Your task to perform on an android device: Open Yahoo.com Image 0: 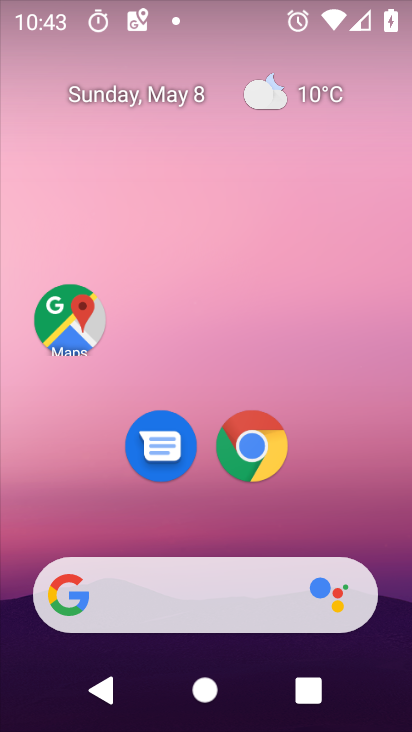
Step 0: click (254, 460)
Your task to perform on an android device: Open Yahoo.com Image 1: 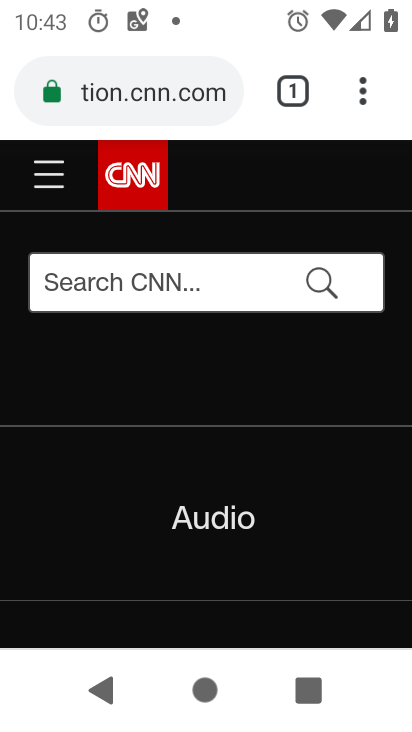
Step 1: click (116, 101)
Your task to perform on an android device: Open Yahoo.com Image 2: 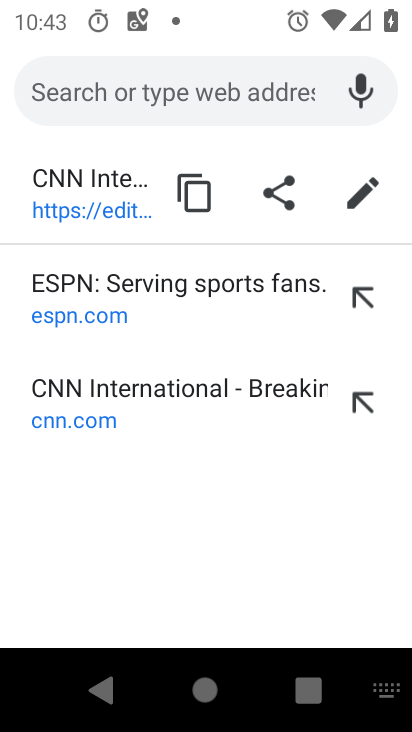
Step 2: type "yahoo.com"
Your task to perform on an android device: Open Yahoo.com Image 3: 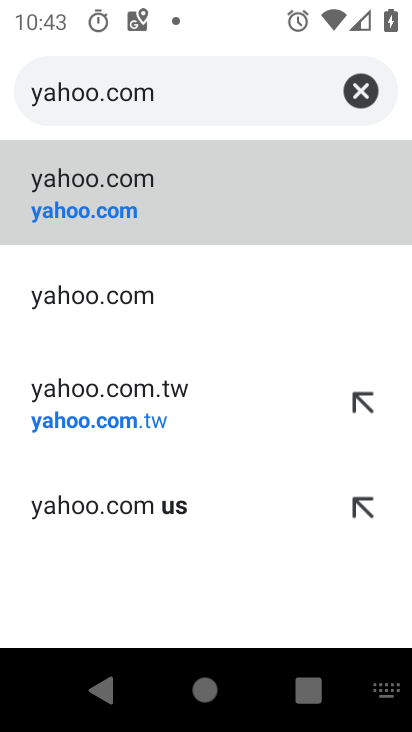
Step 3: click (71, 188)
Your task to perform on an android device: Open Yahoo.com Image 4: 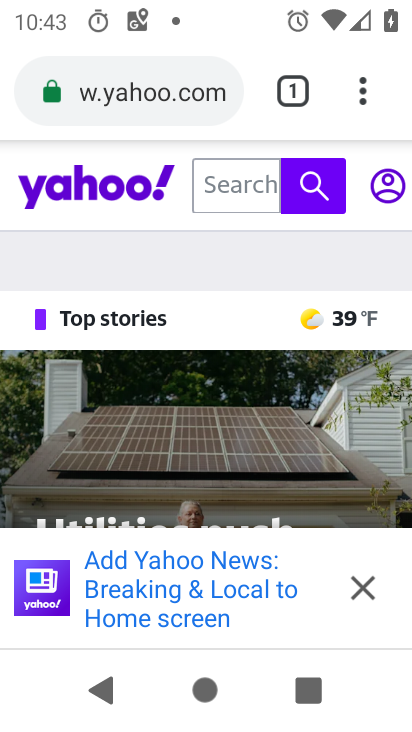
Step 4: task complete